Your task to perform on an android device: turn on translation in the chrome app Image 0: 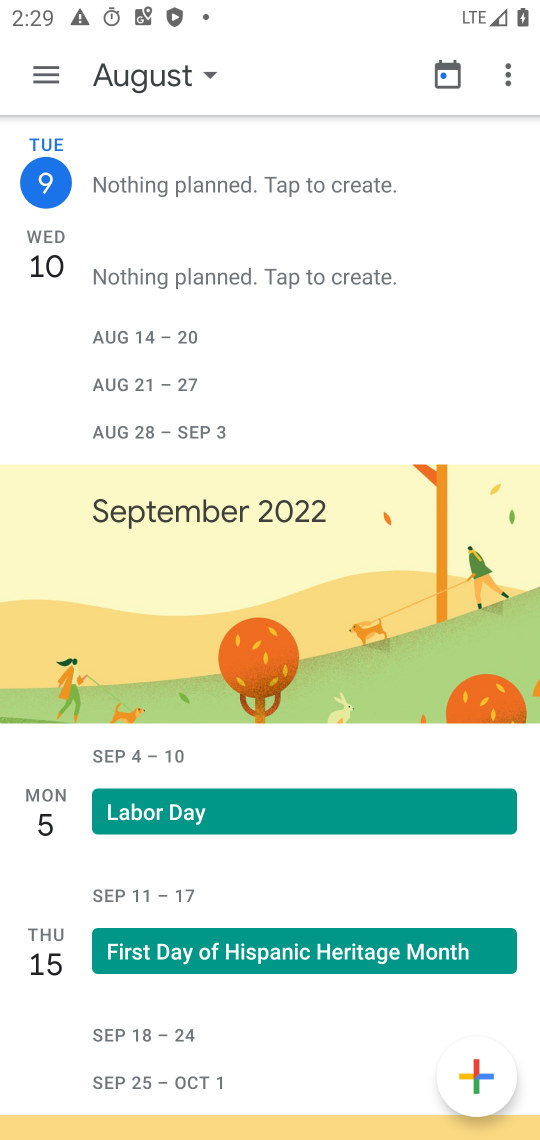
Step 0: press home button
Your task to perform on an android device: turn on translation in the chrome app Image 1: 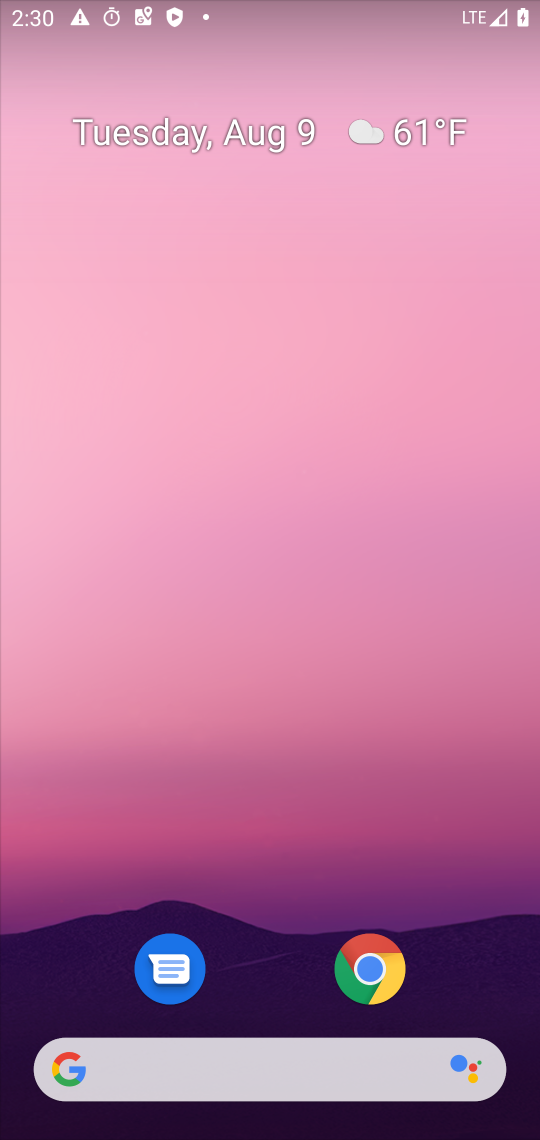
Step 1: drag from (334, 1108) to (286, 383)
Your task to perform on an android device: turn on translation in the chrome app Image 2: 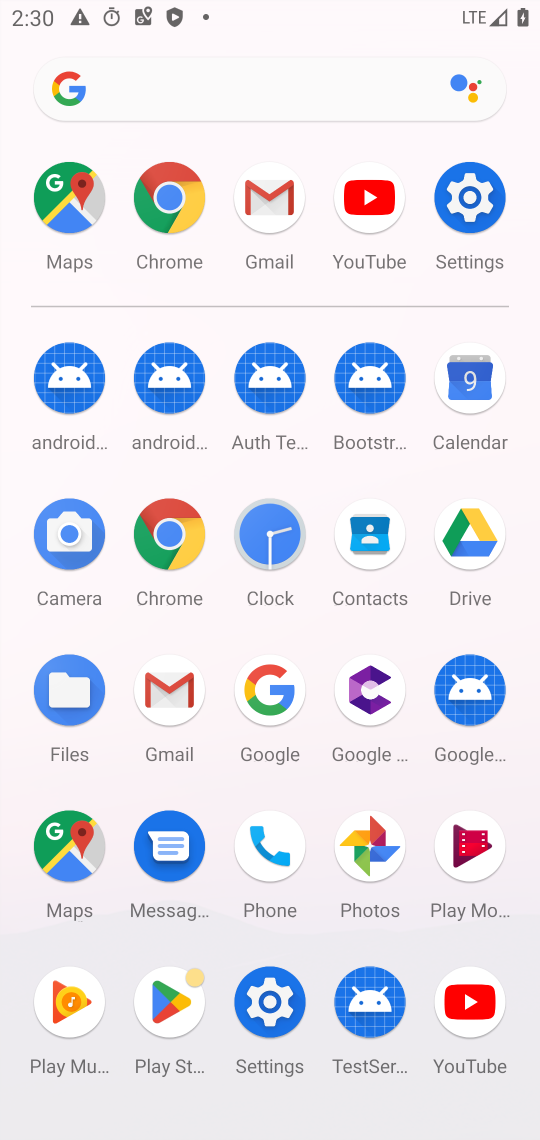
Step 2: click (173, 210)
Your task to perform on an android device: turn on translation in the chrome app Image 3: 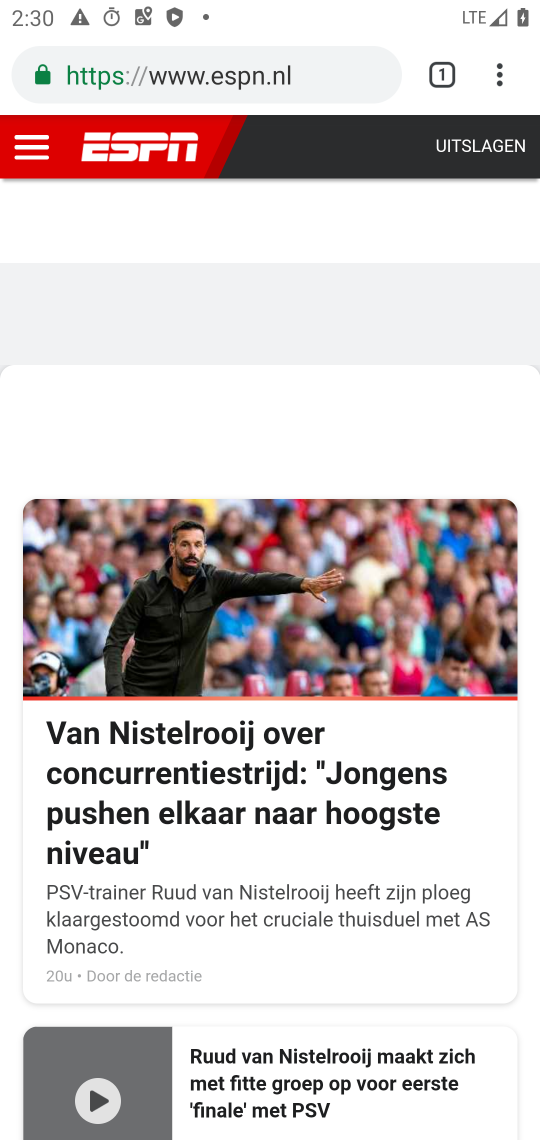
Step 3: click (500, 76)
Your task to perform on an android device: turn on translation in the chrome app Image 4: 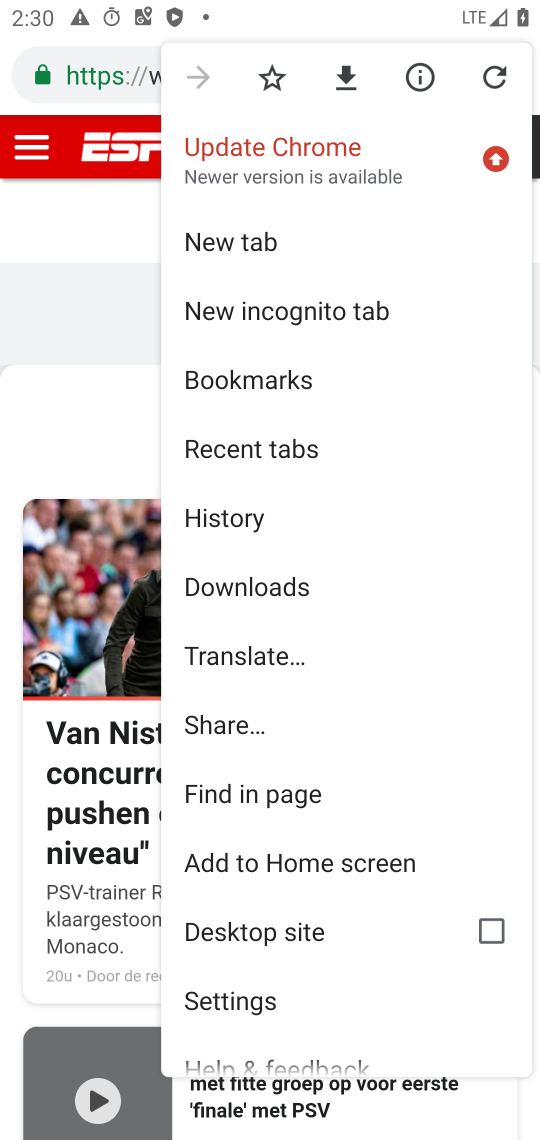
Step 4: click (237, 1001)
Your task to perform on an android device: turn on translation in the chrome app Image 5: 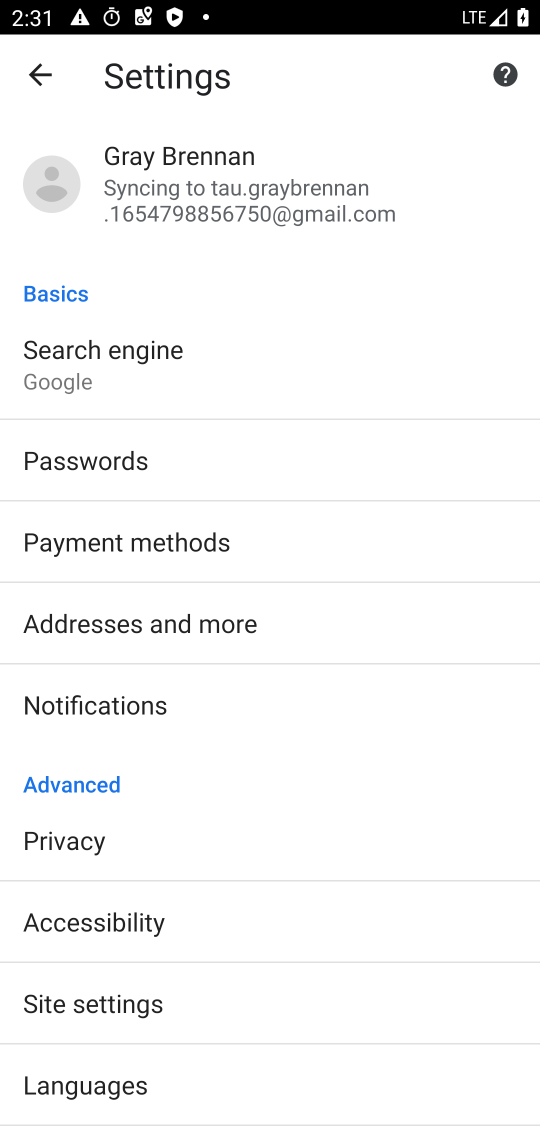
Step 5: click (162, 1089)
Your task to perform on an android device: turn on translation in the chrome app Image 6: 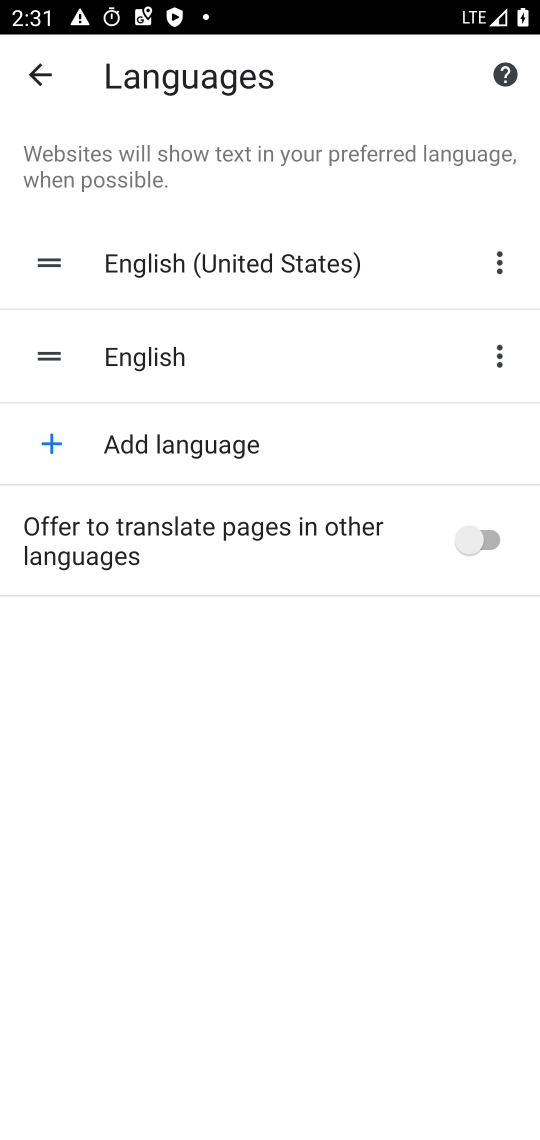
Step 6: click (423, 582)
Your task to perform on an android device: turn on translation in the chrome app Image 7: 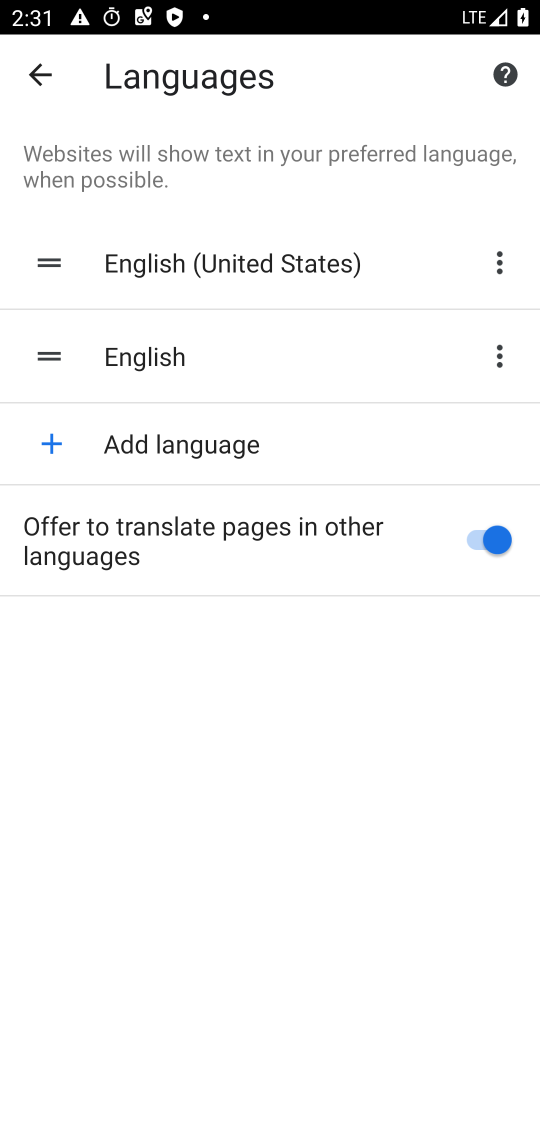
Step 7: task complete